Your task to perform on an android device: Open the phone app and click the voicemail tab. Image 0: 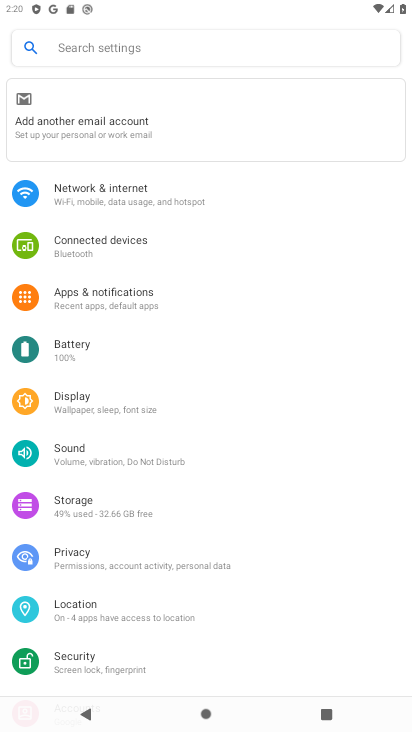
Step 0: press home button
Your task to perform on an android device: Open the phone app and click the voicemail tab. Image 1: 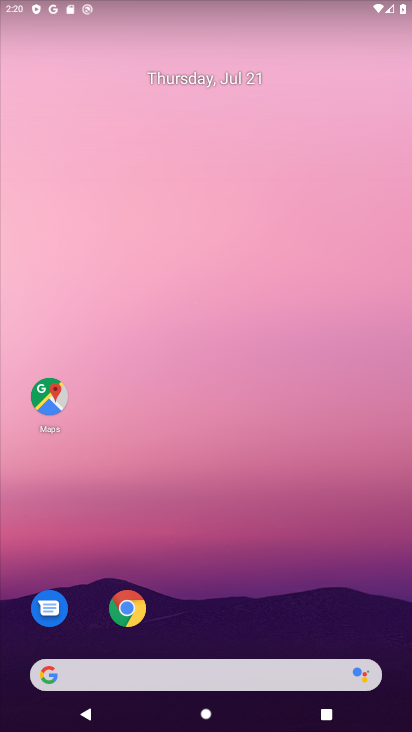
Step 1: drag from (175, 652) to (146, 77)
Your task to perform on an android device: Open the phone app and click the voicemail tab. Image 2: 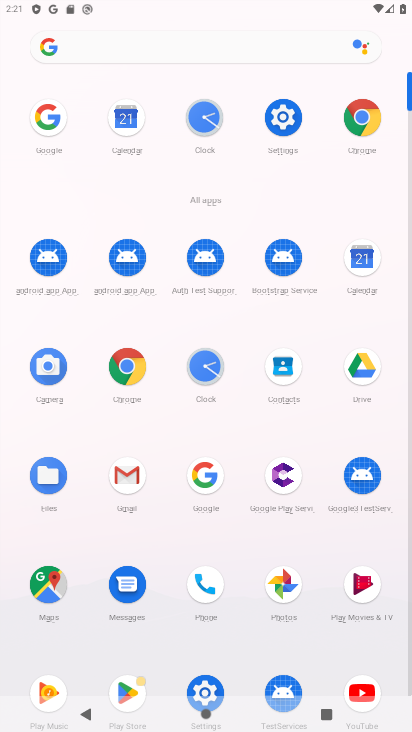
Step 2: click (206, 598)
Your task to perform on an android device: Open the phone app and click the voicemail tab. Image 3: 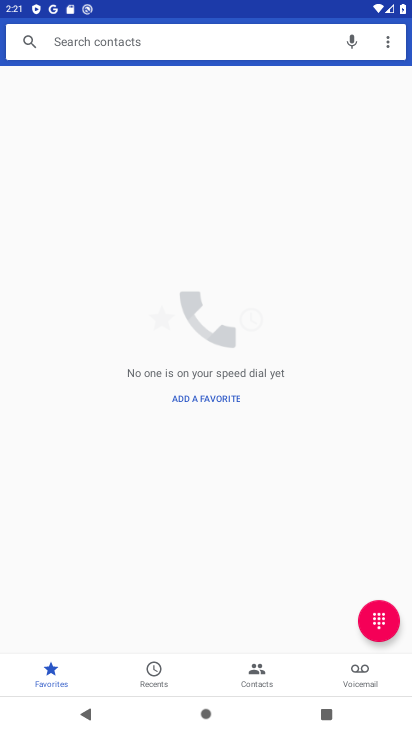
Step 3: click (378, 681)
Your task to perform on an android device: Open the phone app and click the voicemail tab. Image 4: 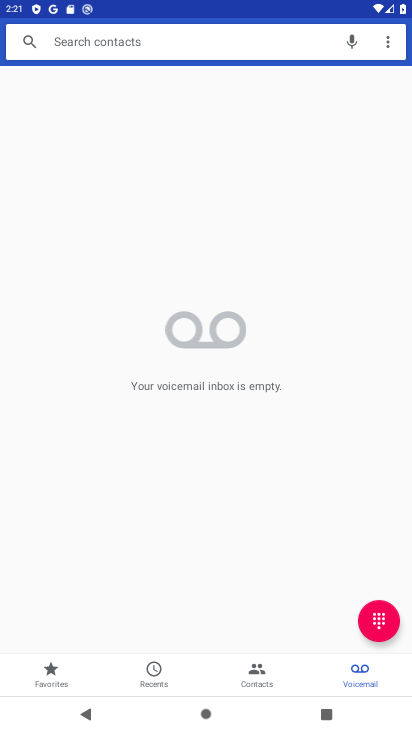
Step 4: click (366, 677)
Your task to perform on an android device: Open the phone app and click the voicemail tab. Image 5: 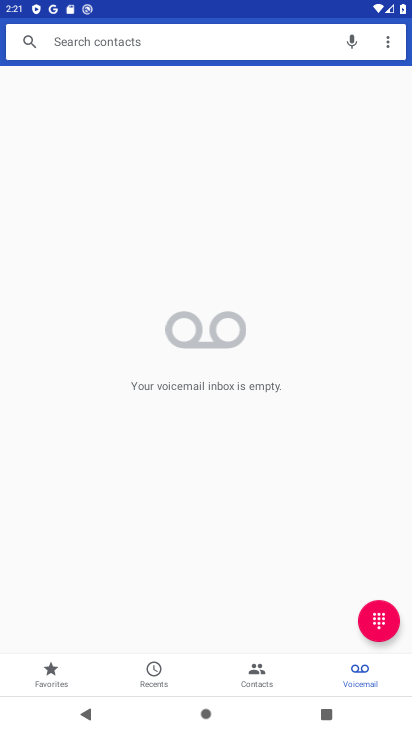
Step 5: task complete